Your task to perform on an android device: find which apps use the phone's location Image 0: 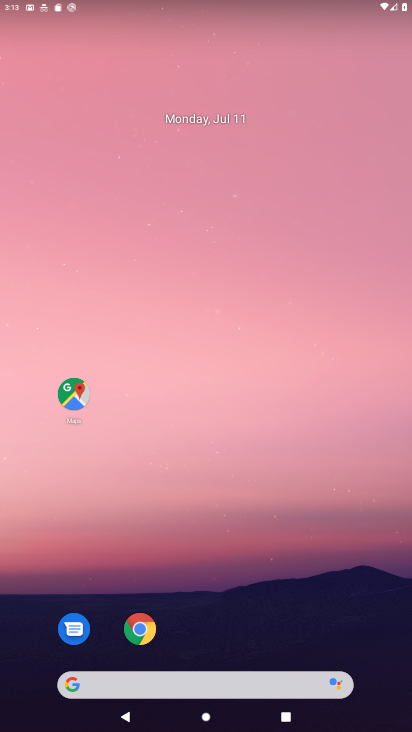
Step 0: drag from (191, 688) to (272, 75)
Your task to perform on an android device: find which apps use the phone's location Image 1: 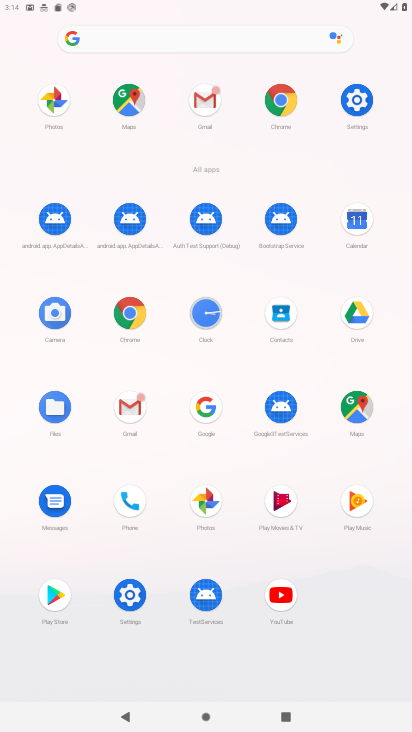
Step 1: click (358, 106)
Your task to perform on an android device: find which apps use the phone's location Image 2: 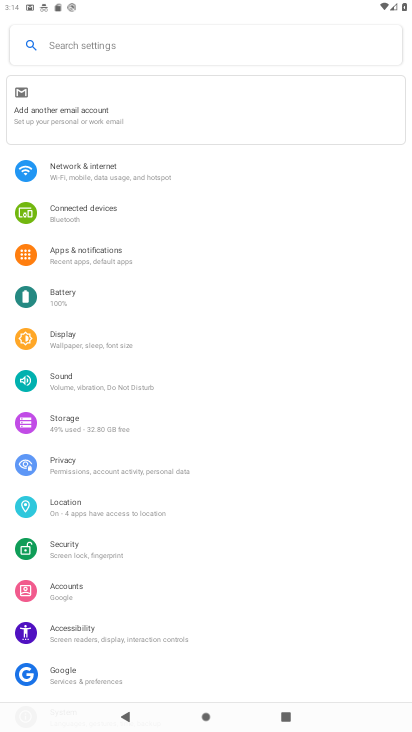
Step 2: click (73, 509)
Your task to perform on an android device: find which apps use the phone's location Image 3: 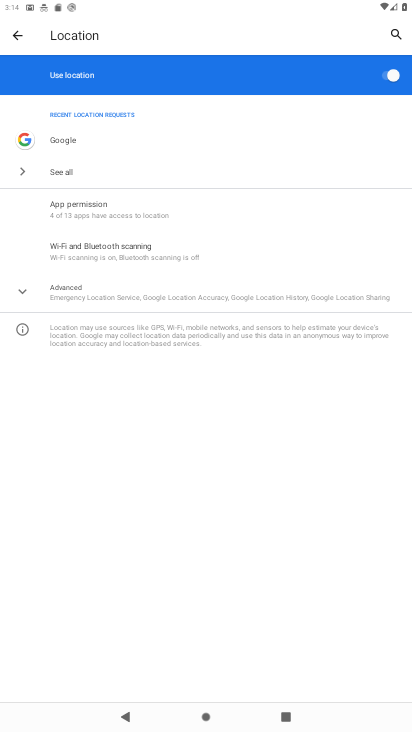
Step 3: click (80, 206)
Your task to perform on an android device: find which apps use the phone's location Image 4: 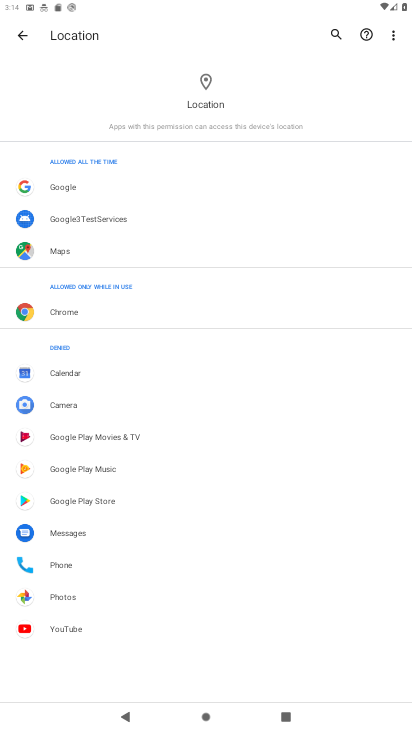
Step 4: drag from (211, 582) to (302, 252)
Your task to perform on an android device: find which apps use the phone's location Image 5: 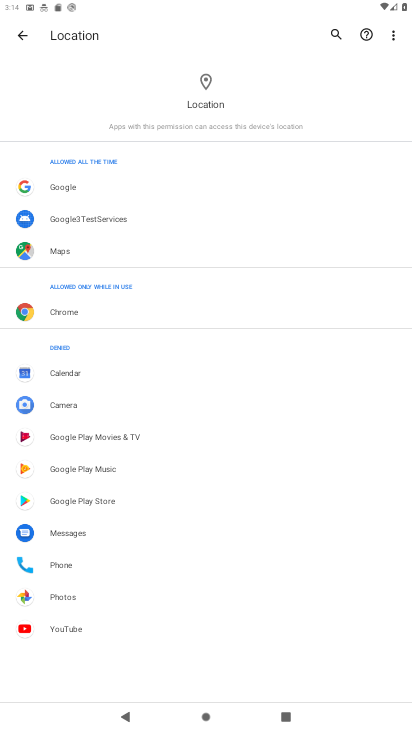
Step 5: click (63, 565)
Your task to perform on an android device: find which apps use the phone's location Image 6: 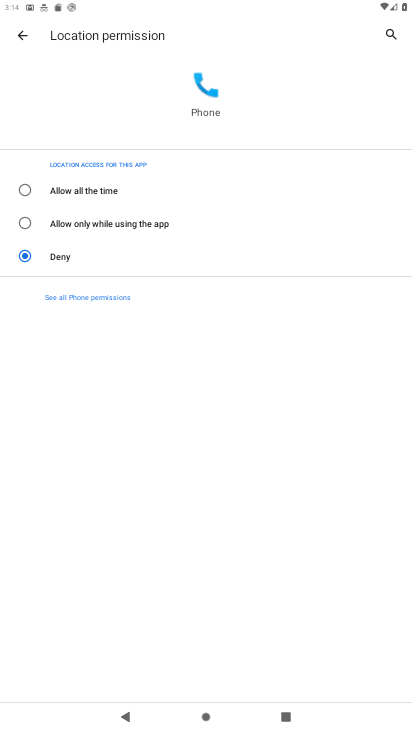
Step 6: task complete